Your task to perform on an android device: Open sound settings Image 0: 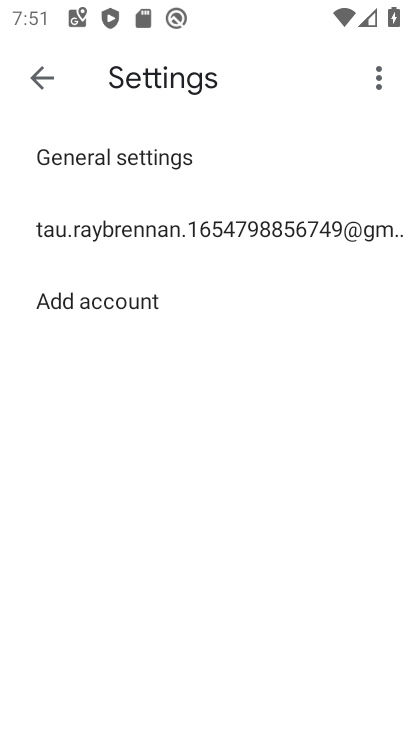
Step 0: press home button
Your task to perform on an android device: Open sound settings Image 1: 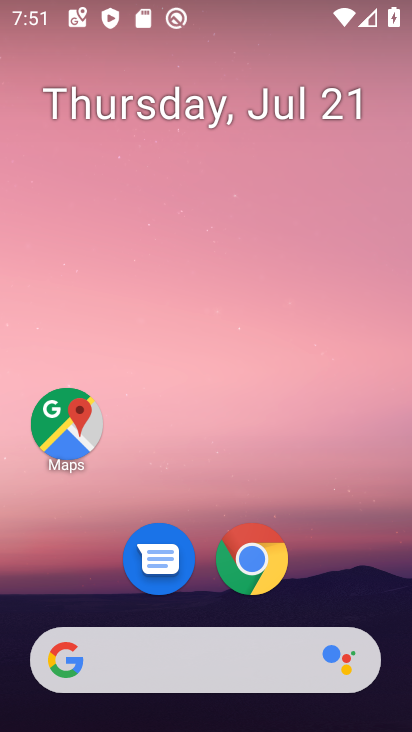
Step 1: drag from (144, 634) to (203, 38)
Your task to perform on an android device: Open sound settings Image 2: 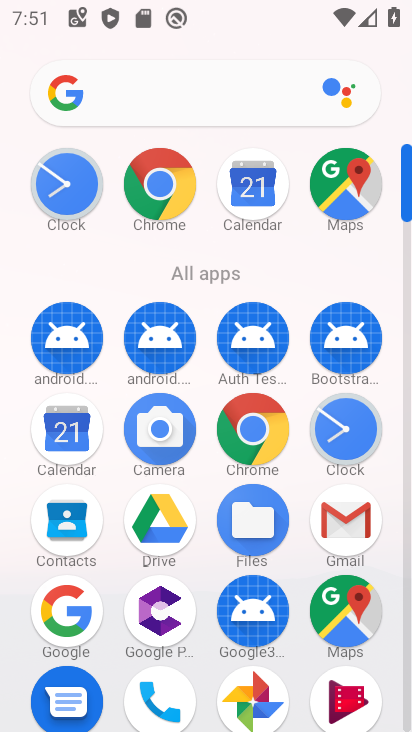
Step 2: drag from (161, 461) to (225, 24)
Your task to perform on an android device: Open sound settings Image 3: 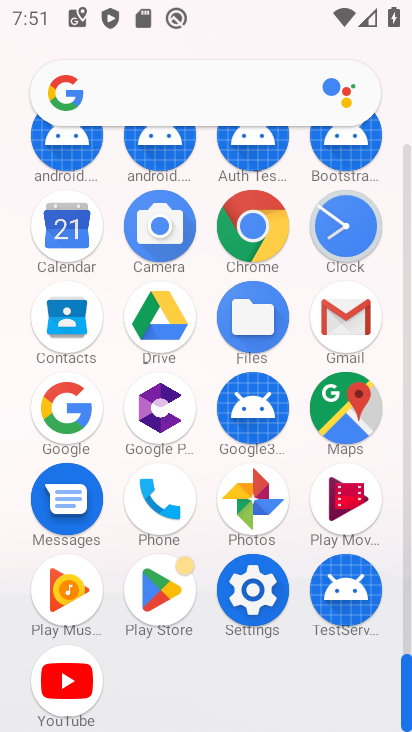
Step 3: click (257, 605)
Your task to perform on an android device: Open sound settings Image 4: 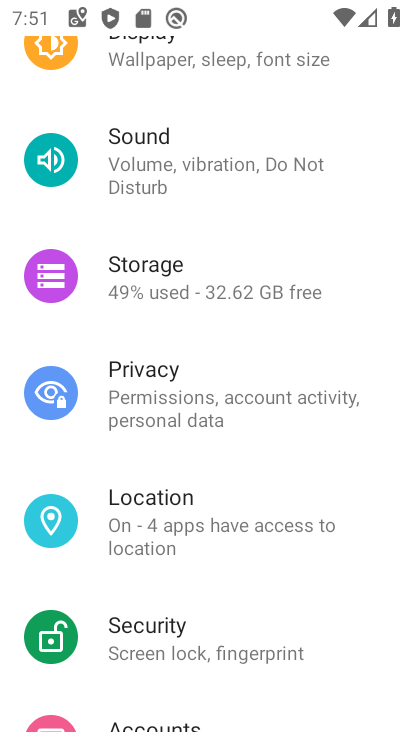
Step 4: click (212, 181)
Your task to perform on an android device: Open sound settings Image 5: 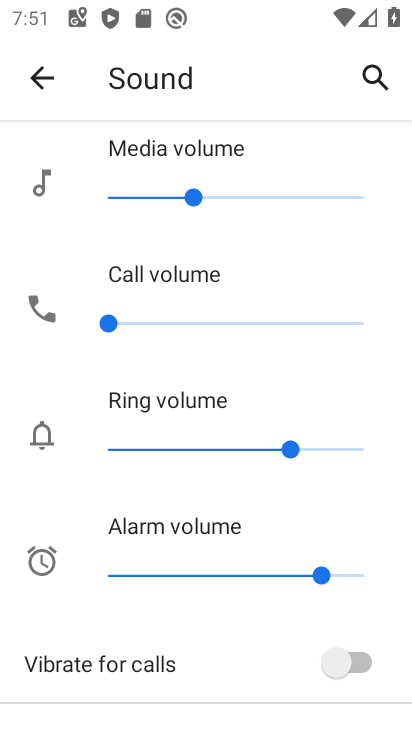
Step 5: task complete